Your task to perform on an android device: What's on my calendar today? Image 0: 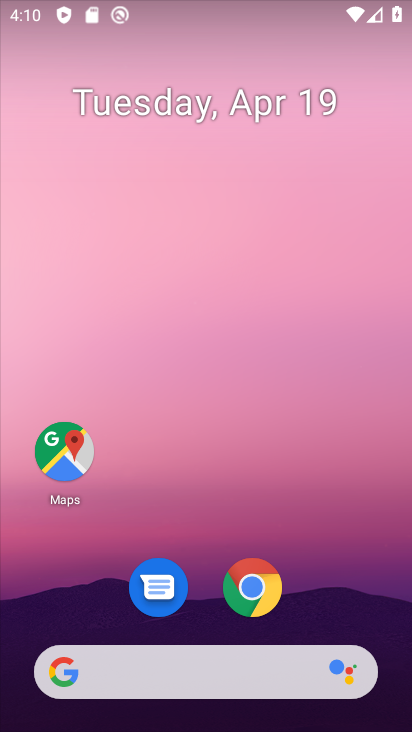
Step 0: drag from (305, 457) to (286, 71)
Your task to perform on an android device: What's on my calendar today? Image 1: 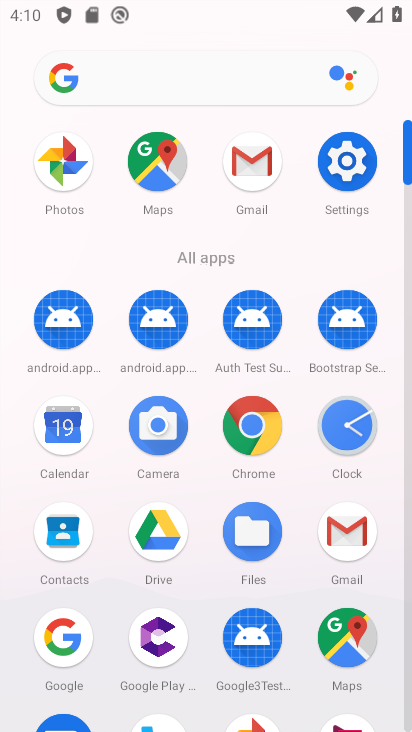
Step 1: click (67, 415)
Your task to perform on an android device: What's on my calendar today? Image 2: 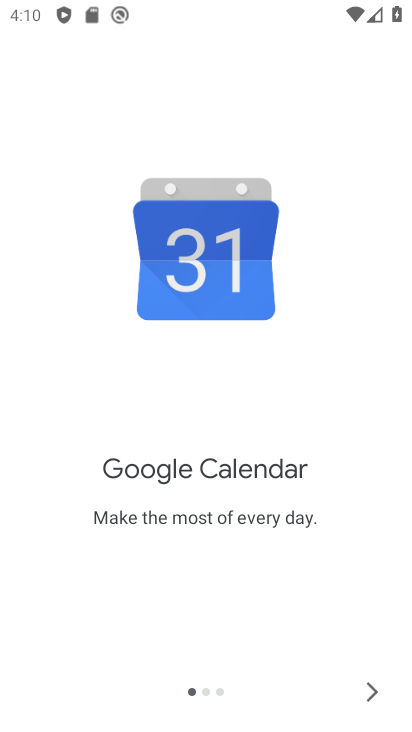
Step 2: click (370, 701)
Your task to perform on an android device: What's on my calendar today? Image 3: 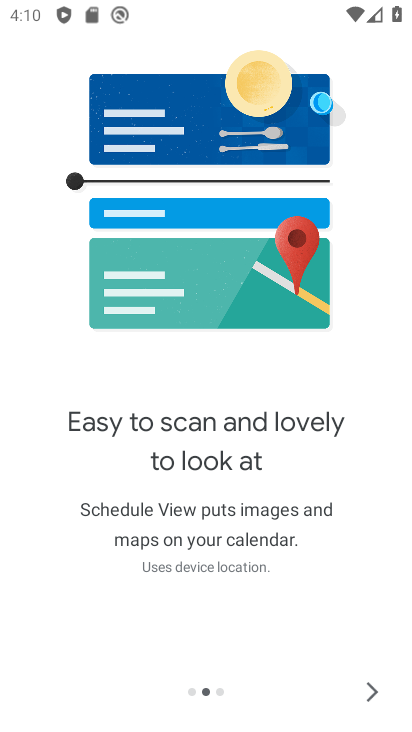
Step 3: click (370, 701)
Your task to perform on an android device: What's on my calendar today? Image 4: 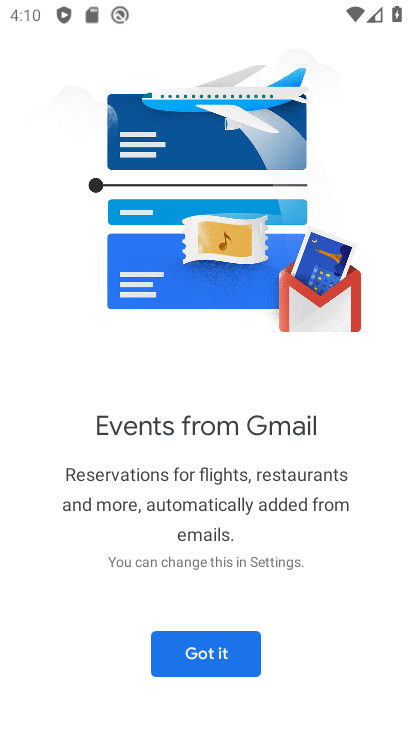
Step 4: click (226, 660)
Your task to perform on an android device: What's on my calendar today? Image 5: 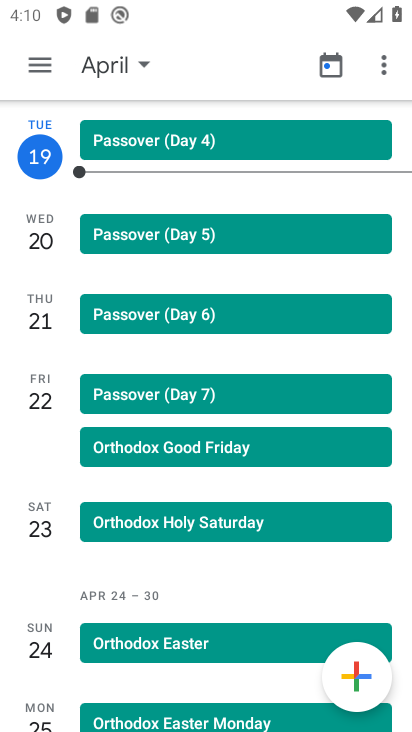
Step 5: click (336, 66)
Your task to perform on an android device: What's on my calendar today? Image 6: 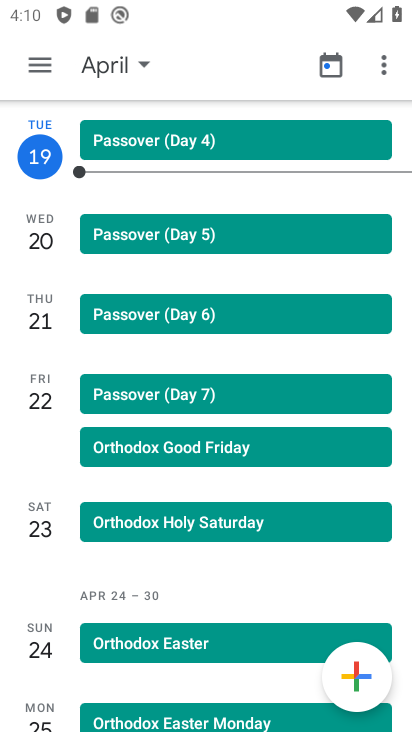
Step 6: click (336, 66)
Your task to perform on an android device: What's on my calendar today? Image 7: 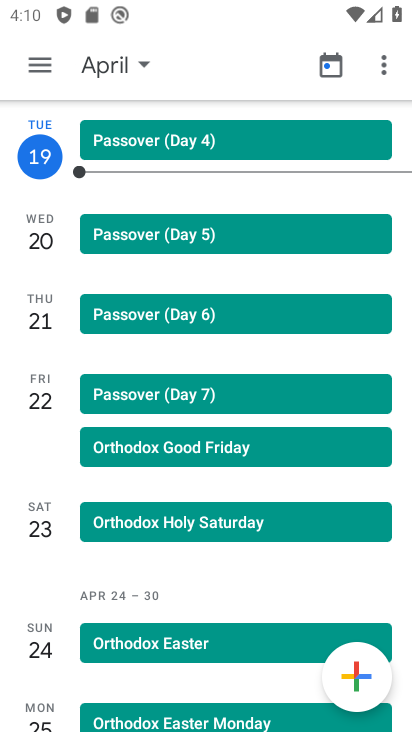
Step 7: click (47, 64)
Your task to perform on an android device: What's on my calendar today? Image 8: 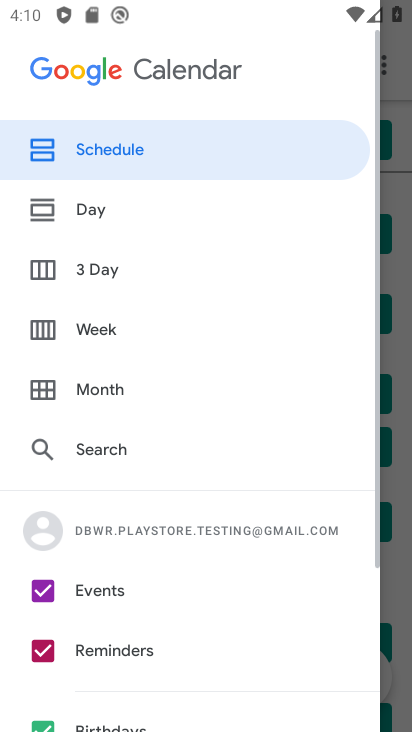
Step 8: click (99, 199)
Your task to perform on an android device: What's on my calendar today? Image 9: 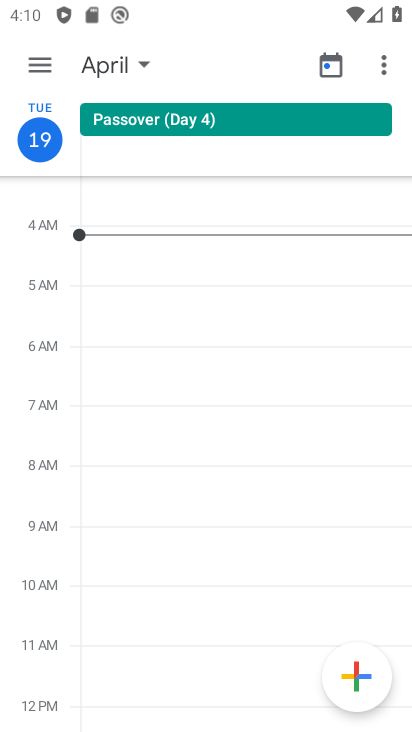
Step 9: task complete